Your task to perform on an android device: turn off javascript in the chrome app Image 0: 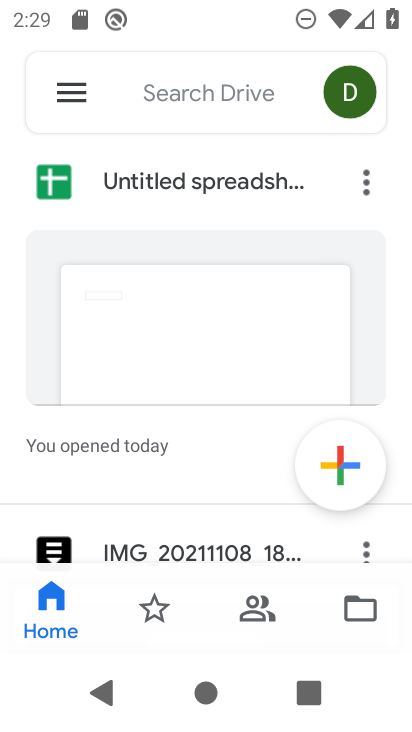
Step 0: press home button
Your task to perform on an android device: turn off javascript in the chrome app Image 1: 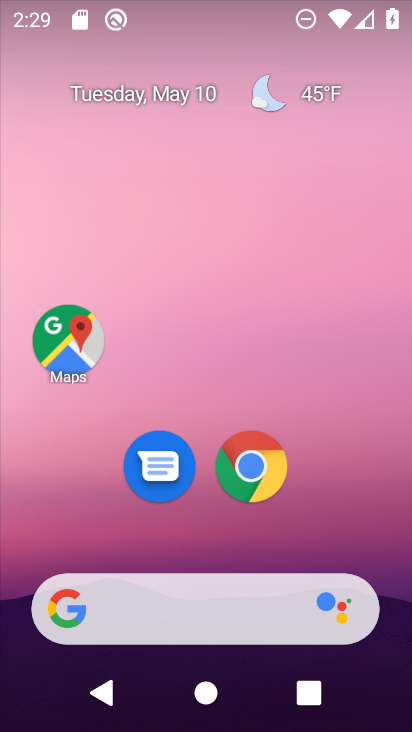
Step 1: click (250, 470)
Your task to perform on an android device: turn off javascript in the chrome app Image 2: 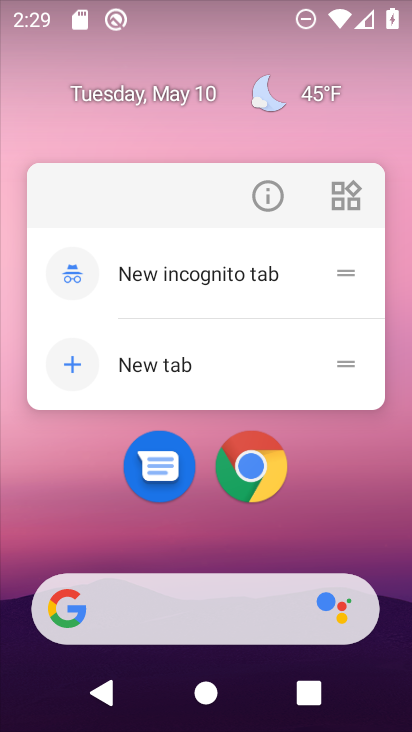
Step 2: click (250, 470)
Your task to perform on an android device: turn off javascript in the chrome app Image 3: 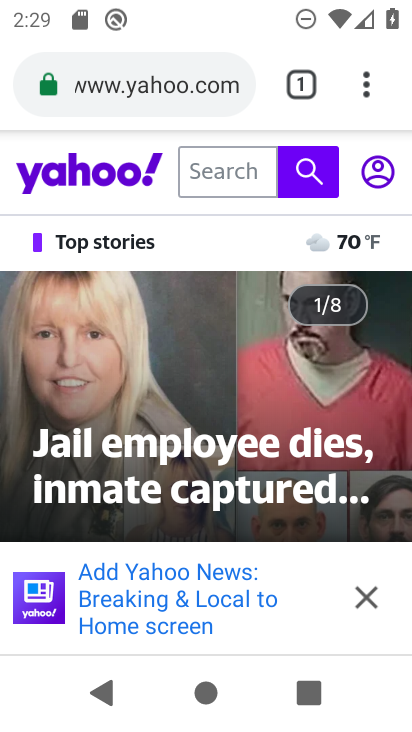
Step 3: click (379, 104)
Your task to perform on an android device: turn off javascript in the chrome app Image 4: 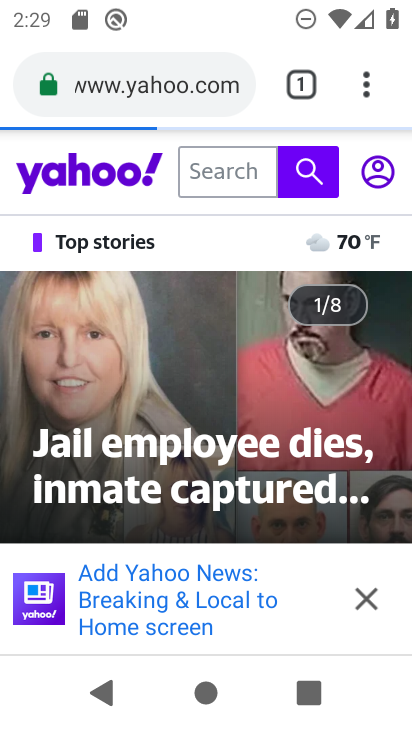
Step 4: click (362, 103)
Your task to perform on an android device: turn off javascript in the chrome app Image 5: 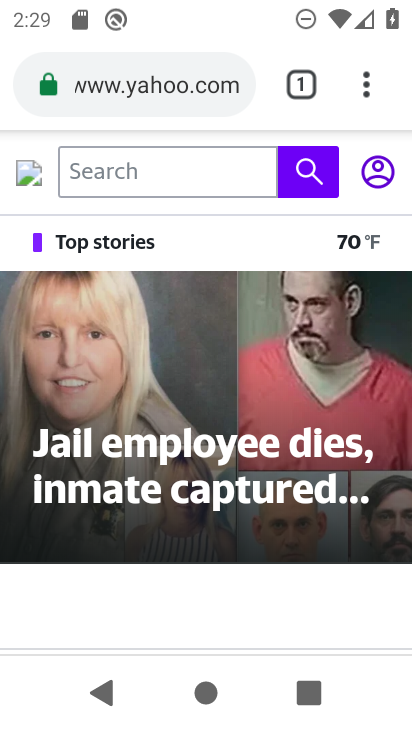
Step 5: click (361, 85)
Your task to perform on an android device: turn off javascript in the chrome app Image 6: 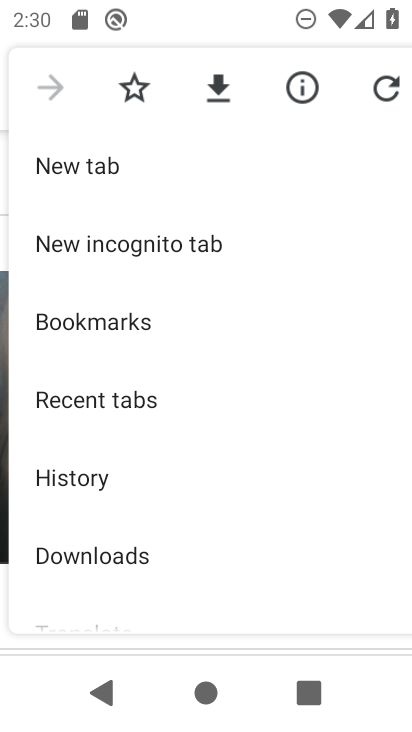
Step 6: drag from (169, 555) to (169, 237)
Your task to perform on an android device: turn off javascript in the chrome app Image 7: 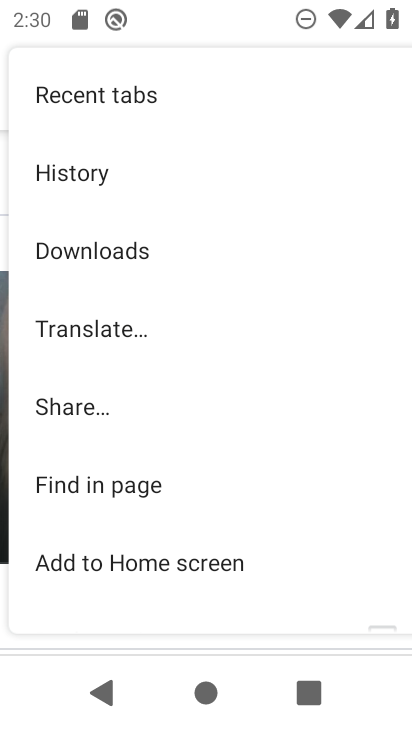
Step 7: drag from (165, 543) to (159, 224)
Your task to perform on an android device: turn off javascript in the chrome app Image 8: 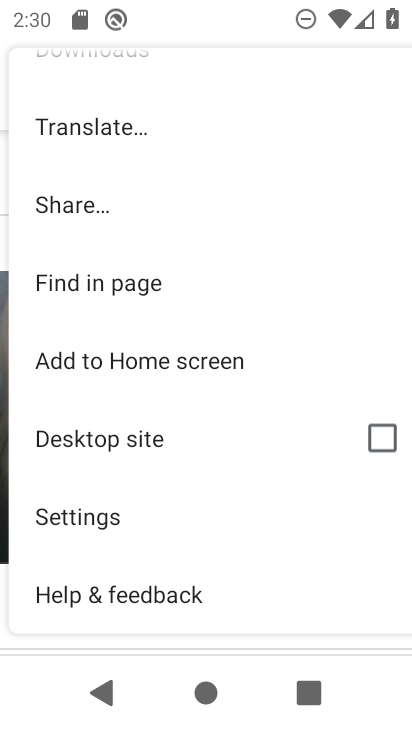
Step 8: click (163, 530)
Your task to perform on an android device: turn off javascript in the chrome app Image 9: 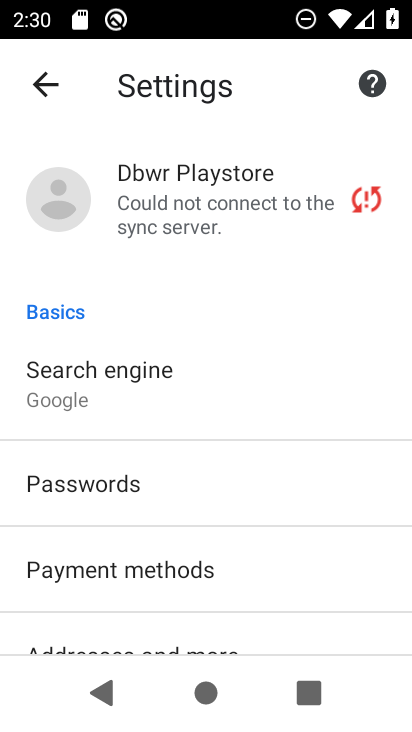
Step 9: drag from (175, 570) to (180, 338)
Your task to perform on an android device: turn off javascript in the chrome app Image 10: 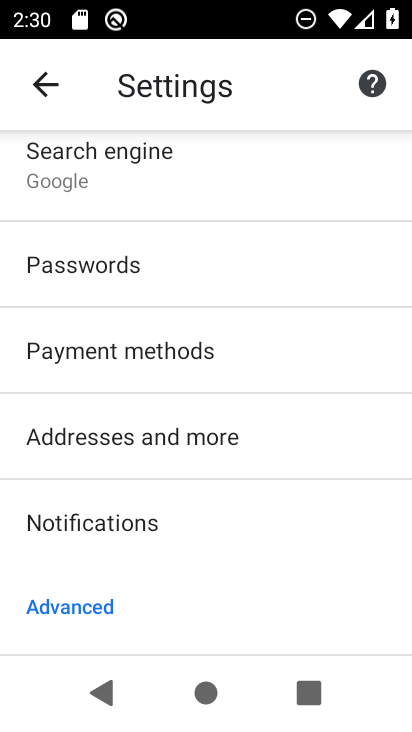
Step 10: drag from (227, 559) to (240, 200)
Your task to perform on an android device: turn off javascript in the chrome app Image 11: 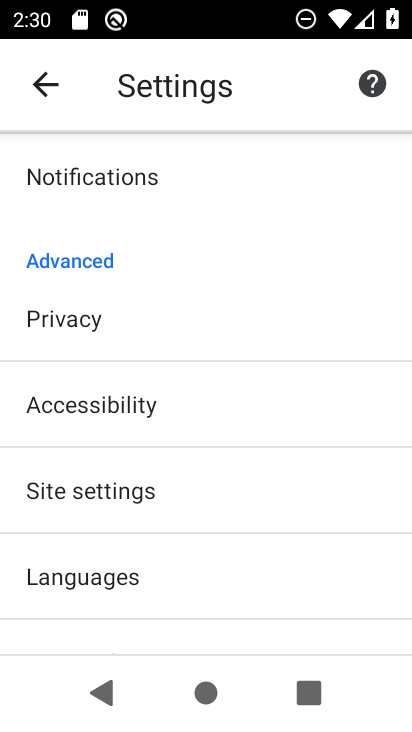
Step 11: drag from (210, 598) to (214, 439)
Your task to perform on an android device: turn off javascript in the chrome app Image 12: 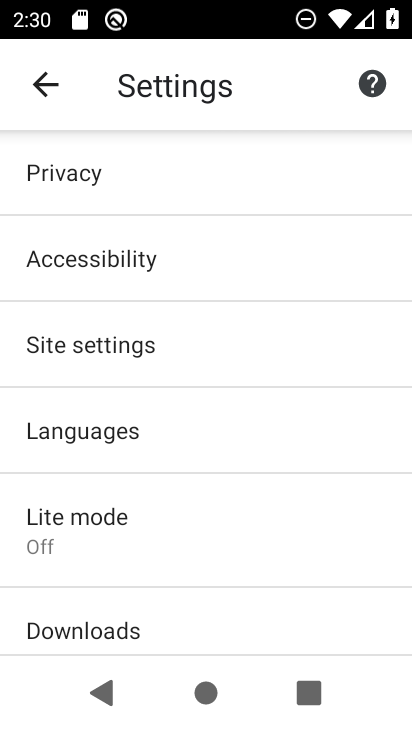
Step 12: click (198, 349)
Your task to perform on an android device: turn off javascript in the chrome app Image 13: 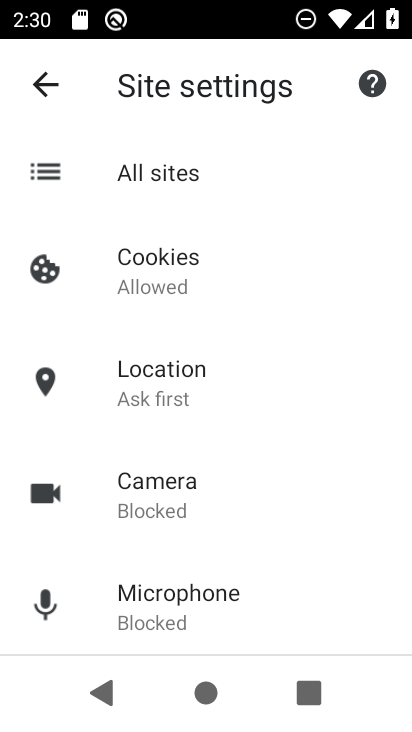
Step 13: drag from (210, 592) to (241, 356)
Your task to perform on an android device: turn off javascript in the chrome app Image 14: 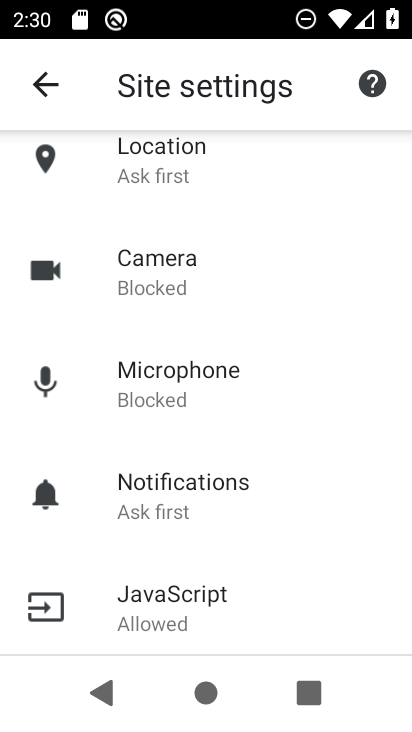
Step 14: click (209, 613)
Your task to perform on an android device: turn off javascript in the chrome app Image 15: 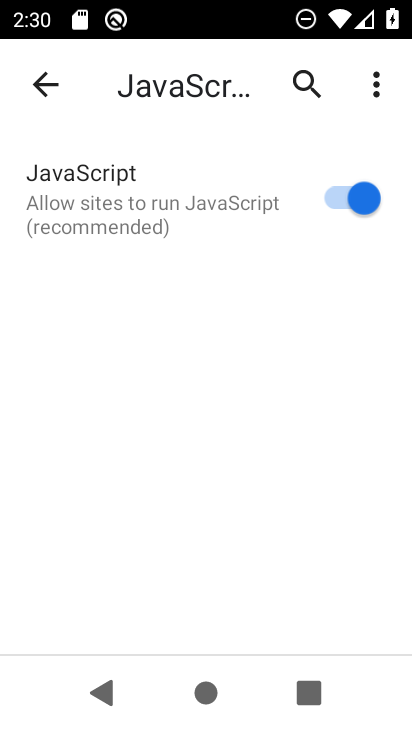
Step 15: click (321, 195)
Your task to perform on an android device: turn off javascript in the chrome app Image 16: 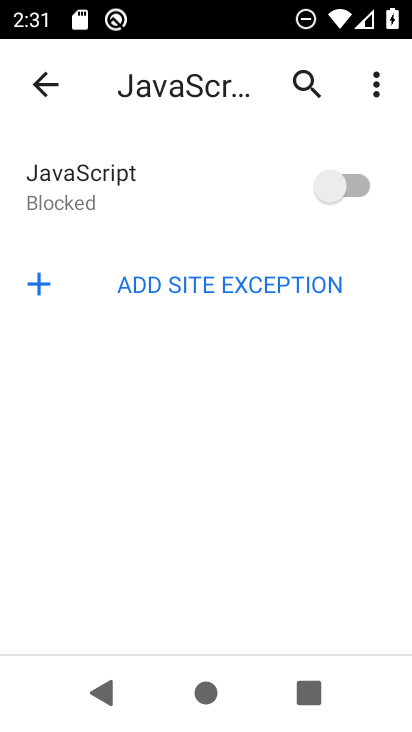
Step 16: task complete